Your task to perform on an android device: set default search engine in the chrome app Image 0: 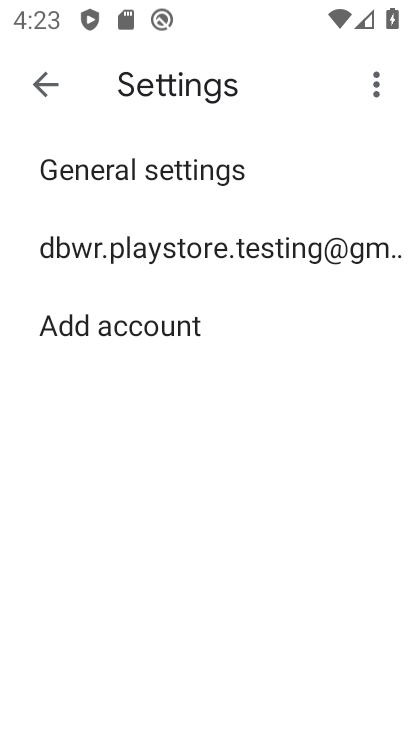
Step 0: press back button
Your task to perform on an android device: set default search engine in the chrome app Image 1: 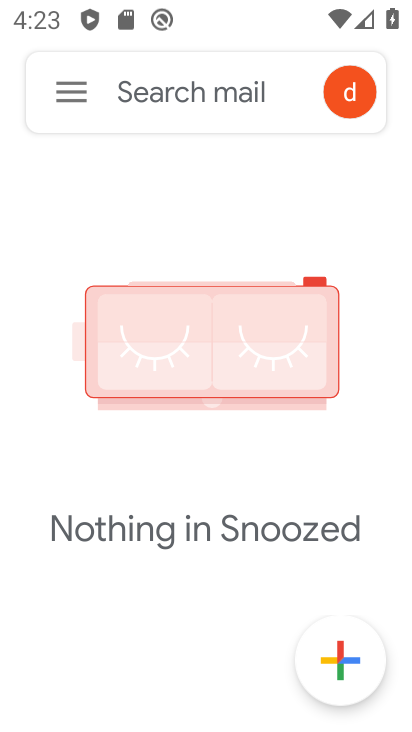
Step 1: press back button
Your task to perform on an android device: set default search engine in the chrome app Image 2: 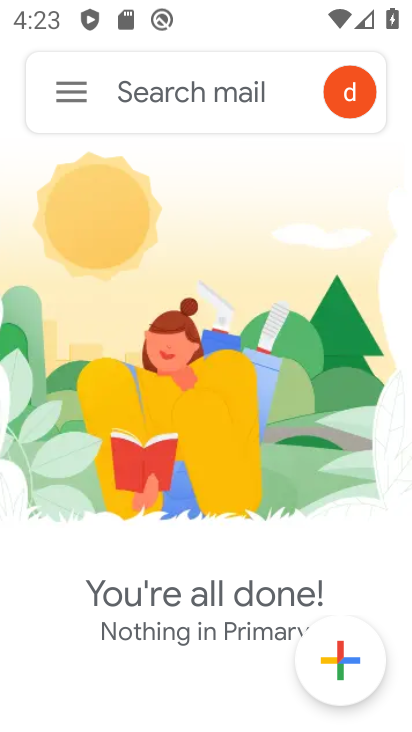
Step 2: press back button
Your task to perform on an android device: set default search engine in the chrome app Image 3: 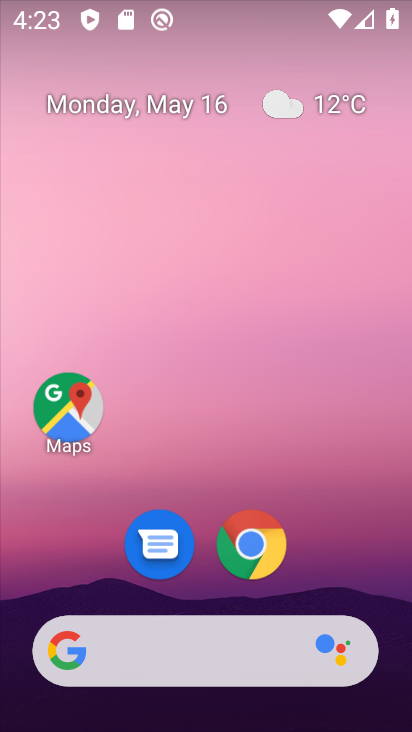
Step 3: click (249, 542)
Your task to perform on an android device: set default search engine in the chrome app Image 4: 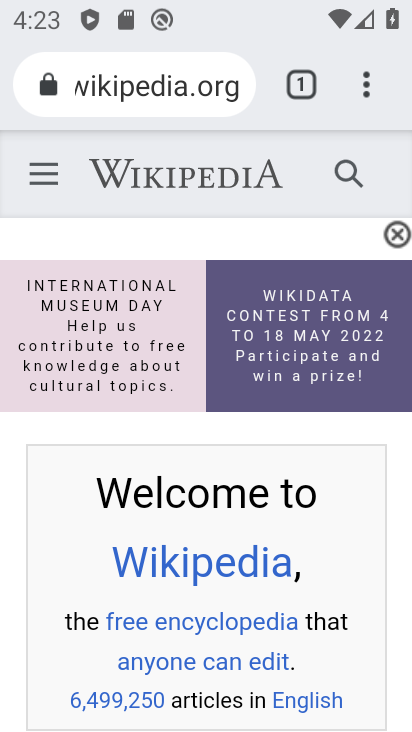
Step 4: click (367, 81)
Your task to perform on an android device: set default search engine in the chrome app Image 5: 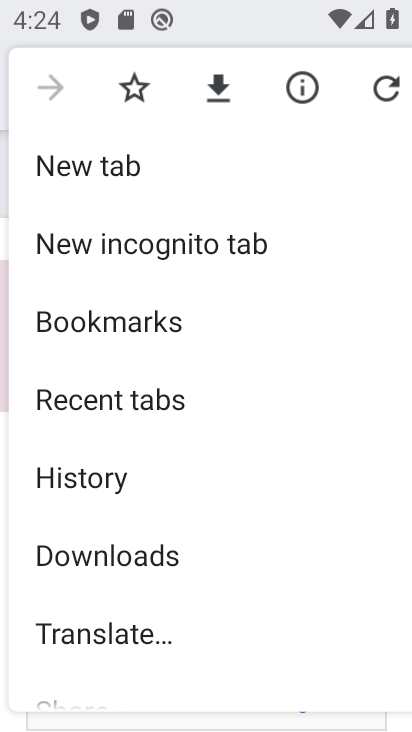
Step 5: drag from (143, 486) to (166, 365)
Your task to perform on an android device: set default search engine in the chrome app Image 6: 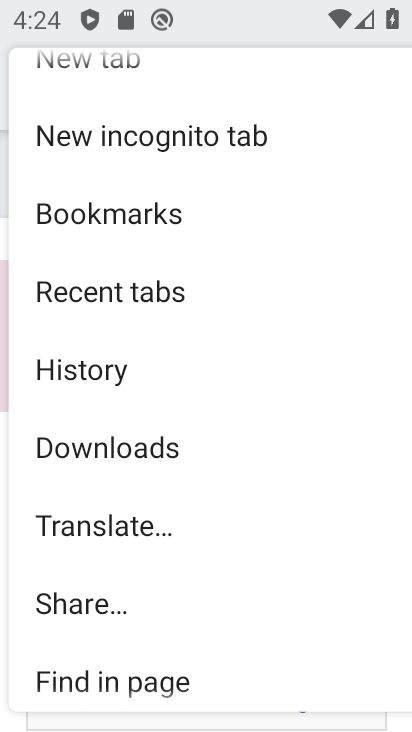
Step 6: drag from (133, 488) to (170, 414)
Your task to perform on an android device: set default search engine in the chrome app Image 7: 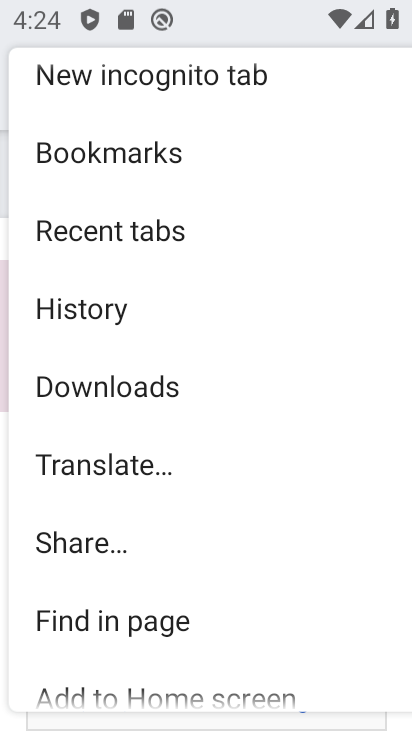
Step 7: drag from (114, 562) to (157, 481)
Your task to perform on an android device: set default search engine in the chrome app Image 8: 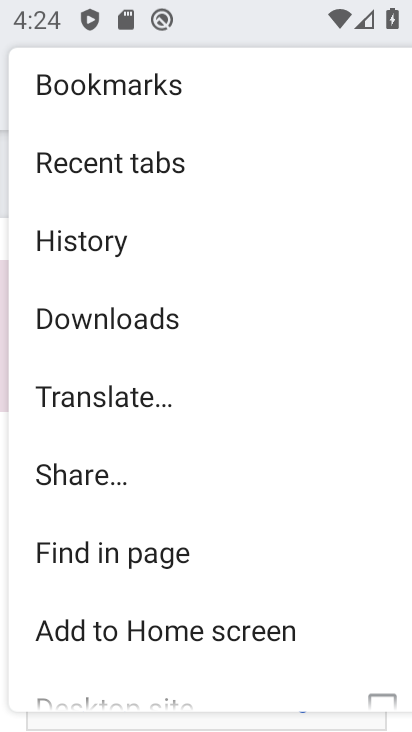
Step 8: drag from (108, 579) to (178, 479)
Your task to perform on an android device: set default search engine in the chrome app Image 9: 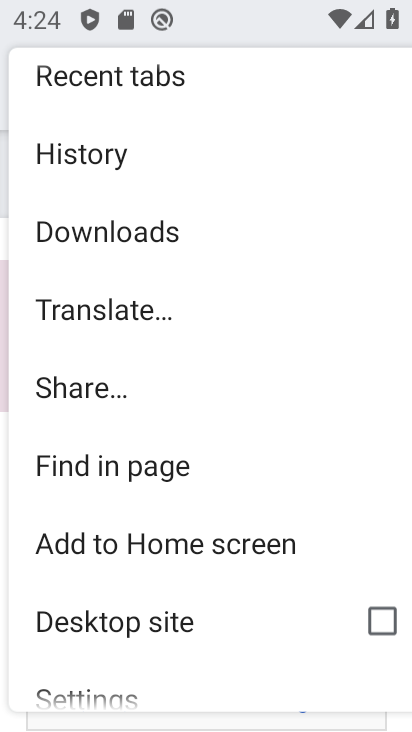
Step 9: drag from (131, 574) to (217, 465)
Your task to perform on an android device: set default search engine in the chrome app Image 10: 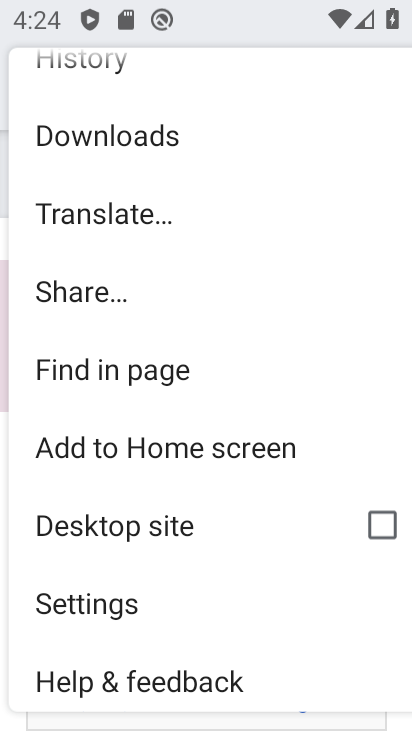
Step 10: drag from (123, 561) to (230, 444)
Your task to perform on an android device: set default search engine in the chrome app Image 11: 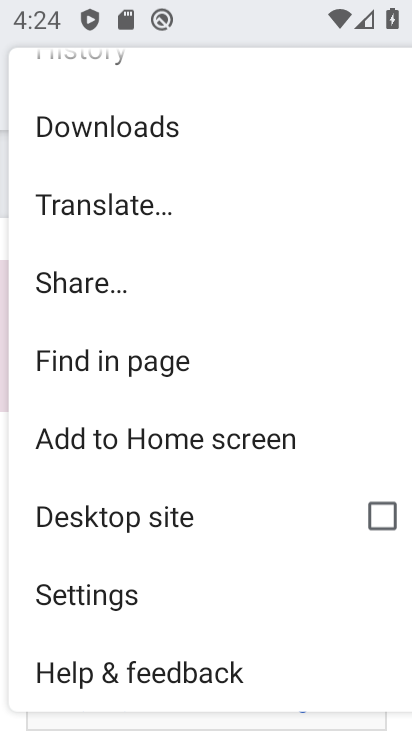
Step 11: click (97, 591)
Your task to perform on an android device: set default search engine in the chrome app Image 12: 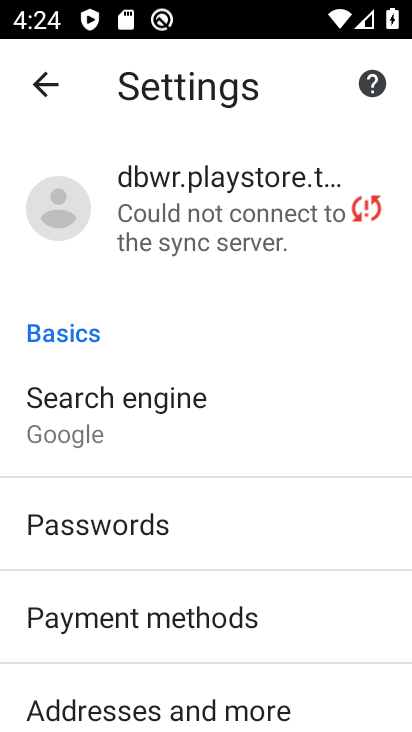
Step 12: click (107, 409)
Your task to perform on an android device: set default search engine in the chrome app Image 13: 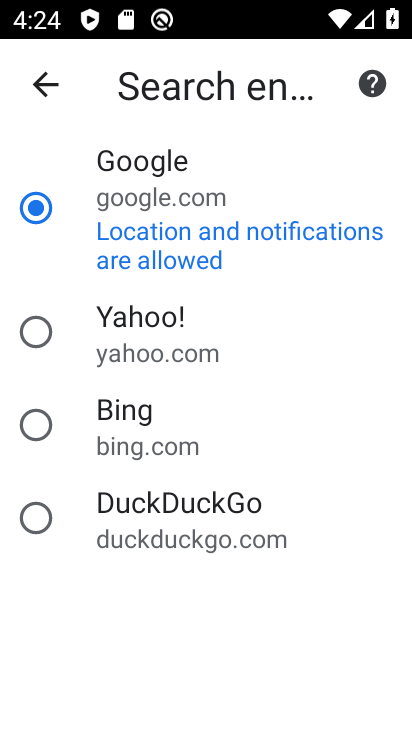
Step 13: click (107, 409)
Your task to perform on an android device: set default search engine in the chrome app Image 14: 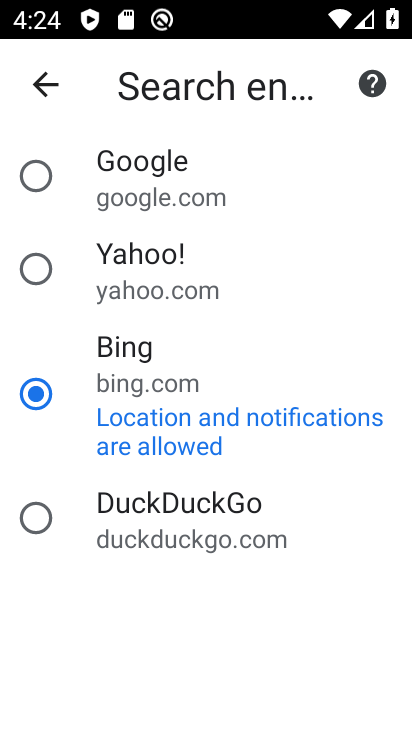
Step 14: task complete